Your task to perform on an android device: open app "Google Find My Device" Image 0: 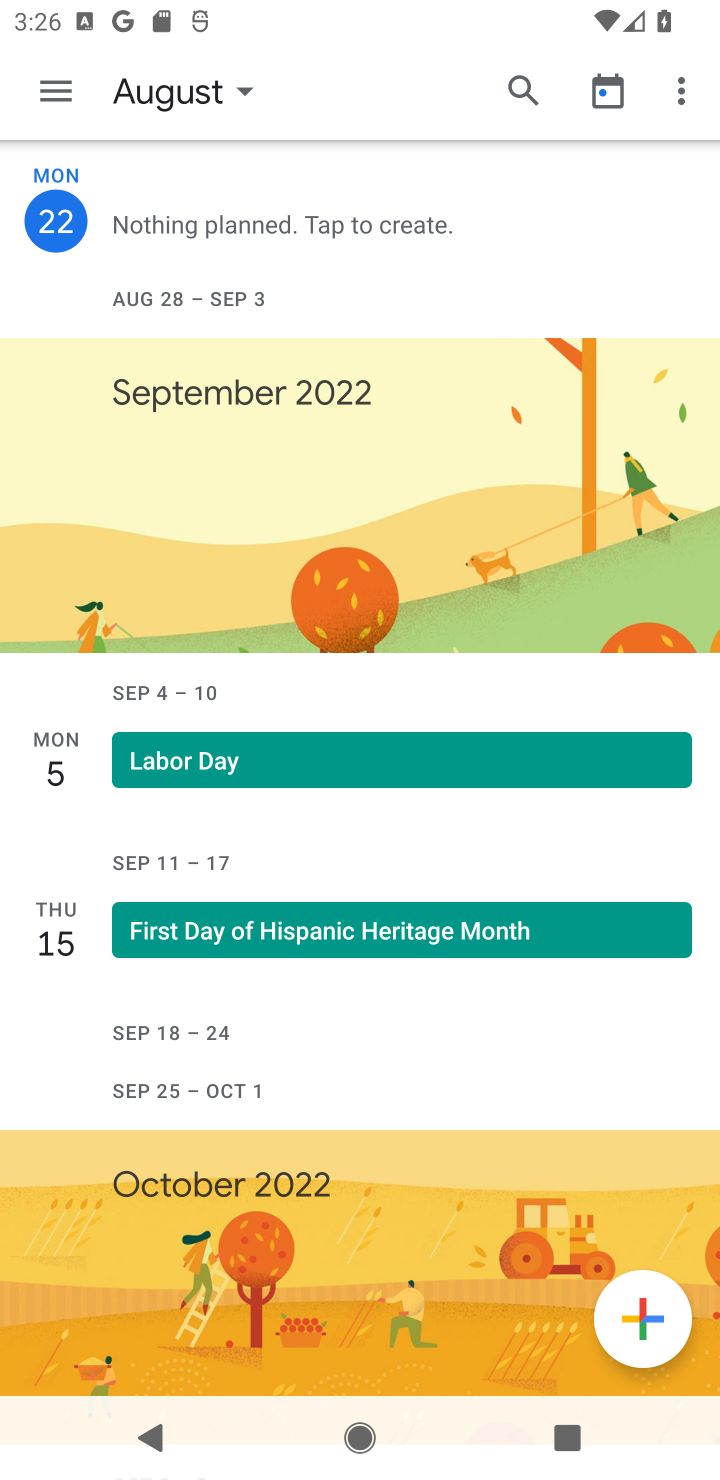
Step 0: press home button
Your task to perform on an android device: open app "Google Find My Device" Image 1: 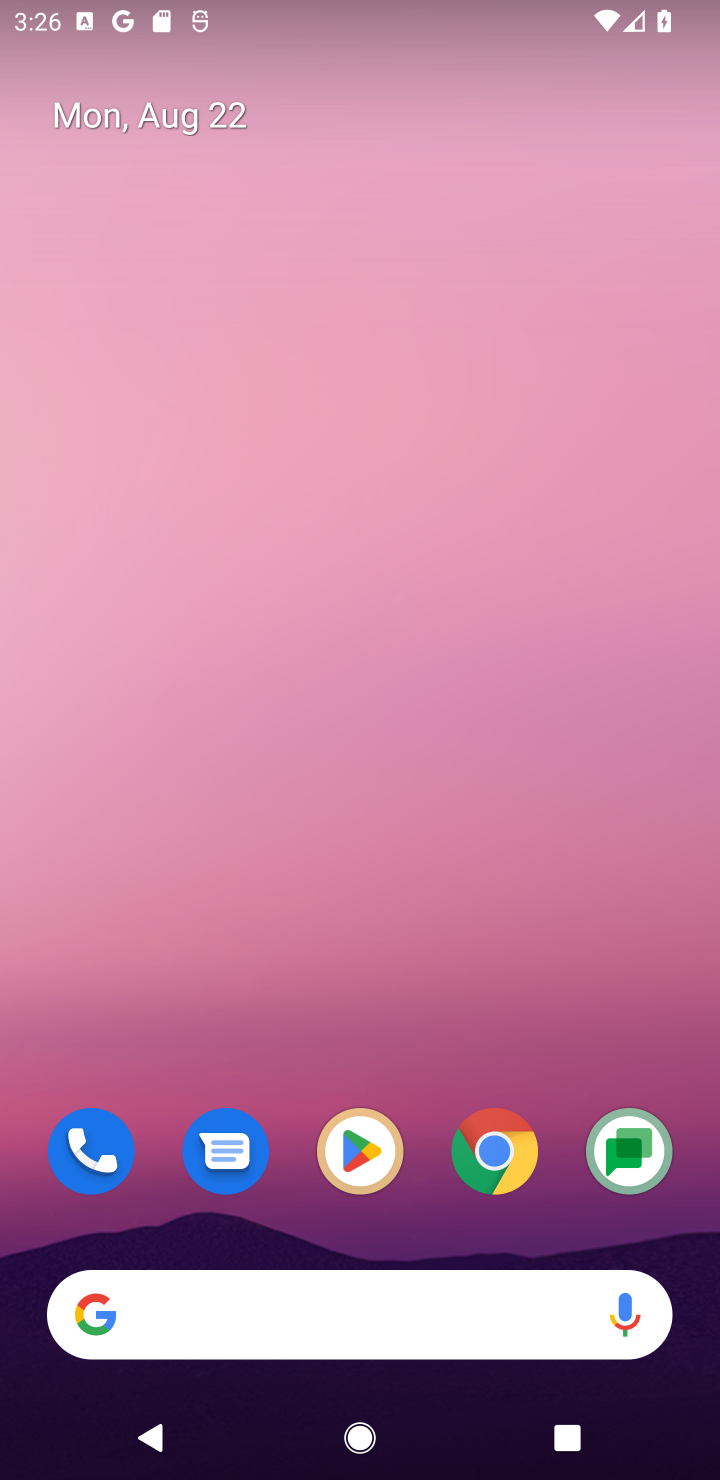
Step 1: click (379, 1127)
Your task to perform on an android device: open app "Google Find My Device" Image 2: 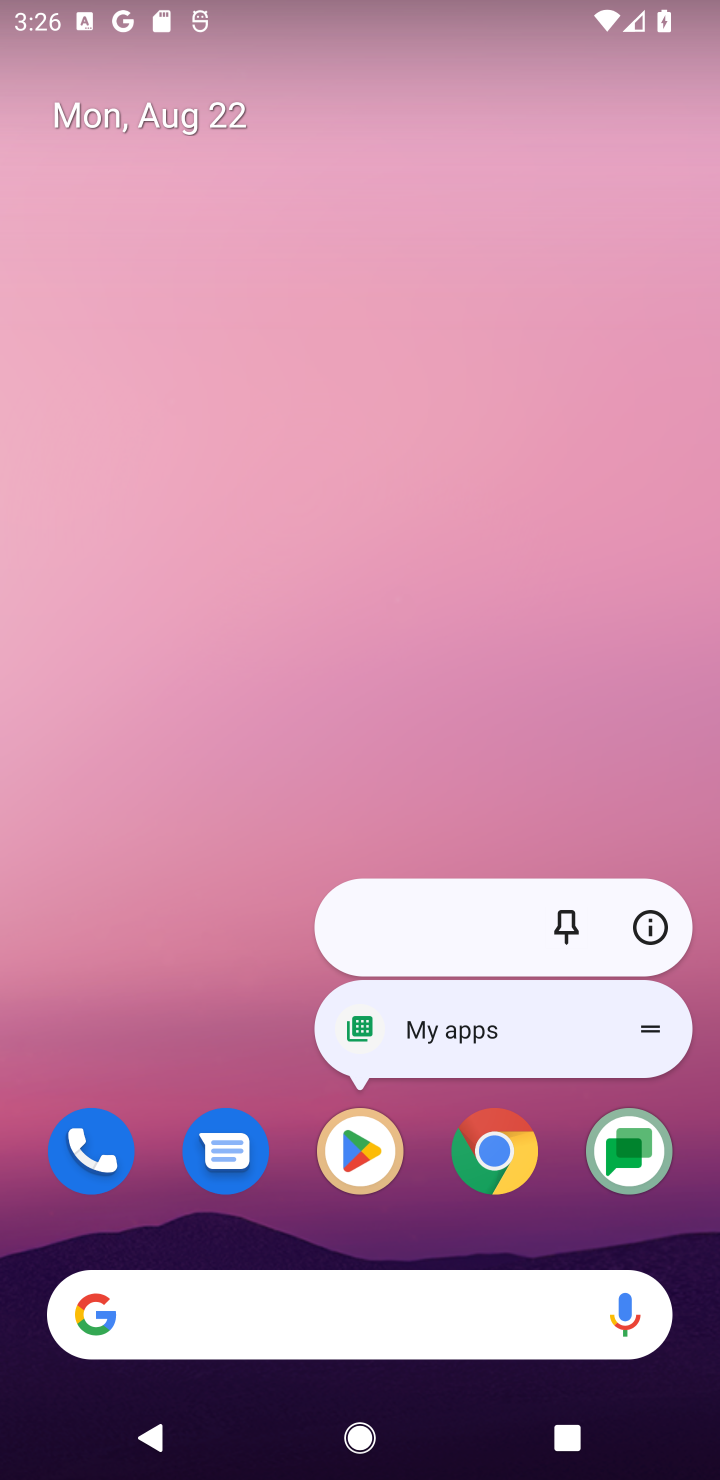
Step 2: click (354, 1155)
Your task to perform on an android device: open app "Google Find My Device" Image 3: 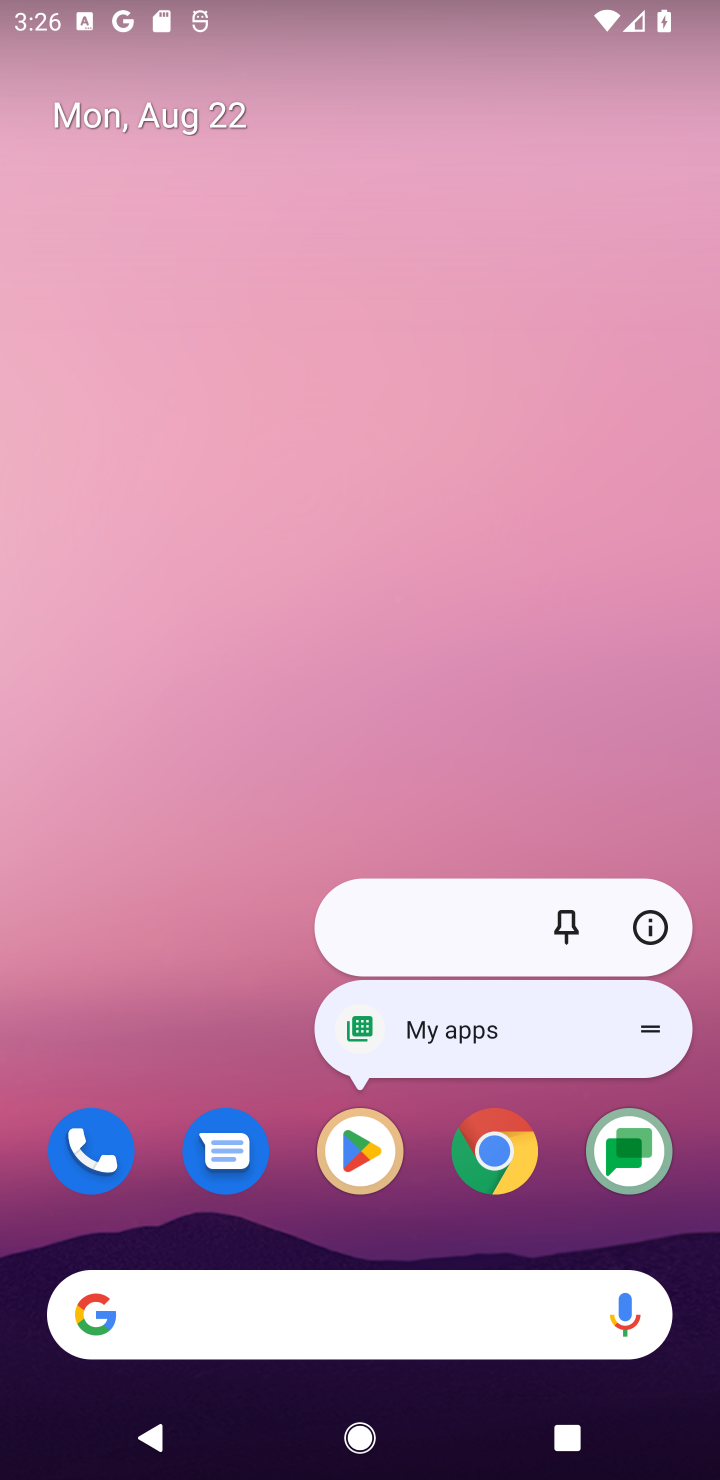
Step 3: click (354, 1155)
Your task to perform on an android device: open app "Google Find My Device" Image 4: 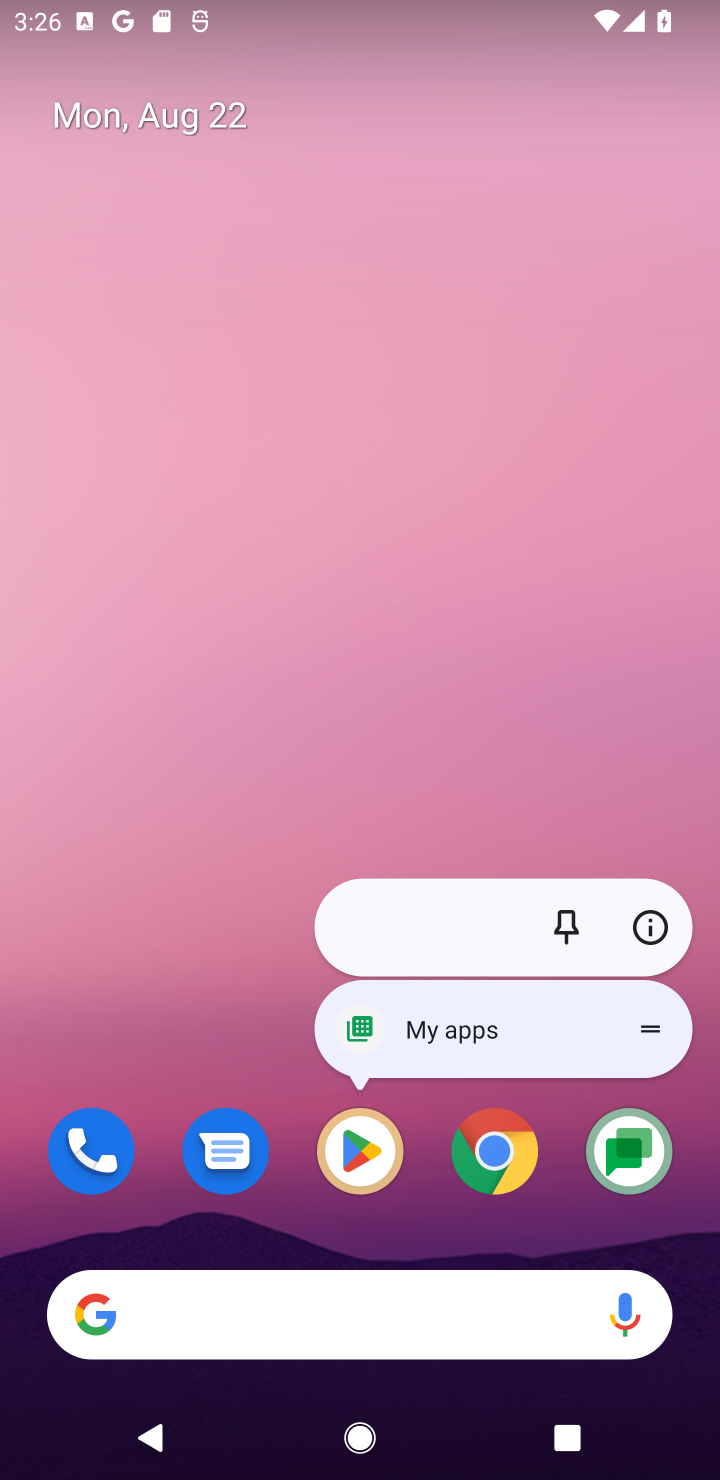
Step 4: click (354, 1162)
Your task to perform on an android device: open app "Google Find My Device" Image 5: 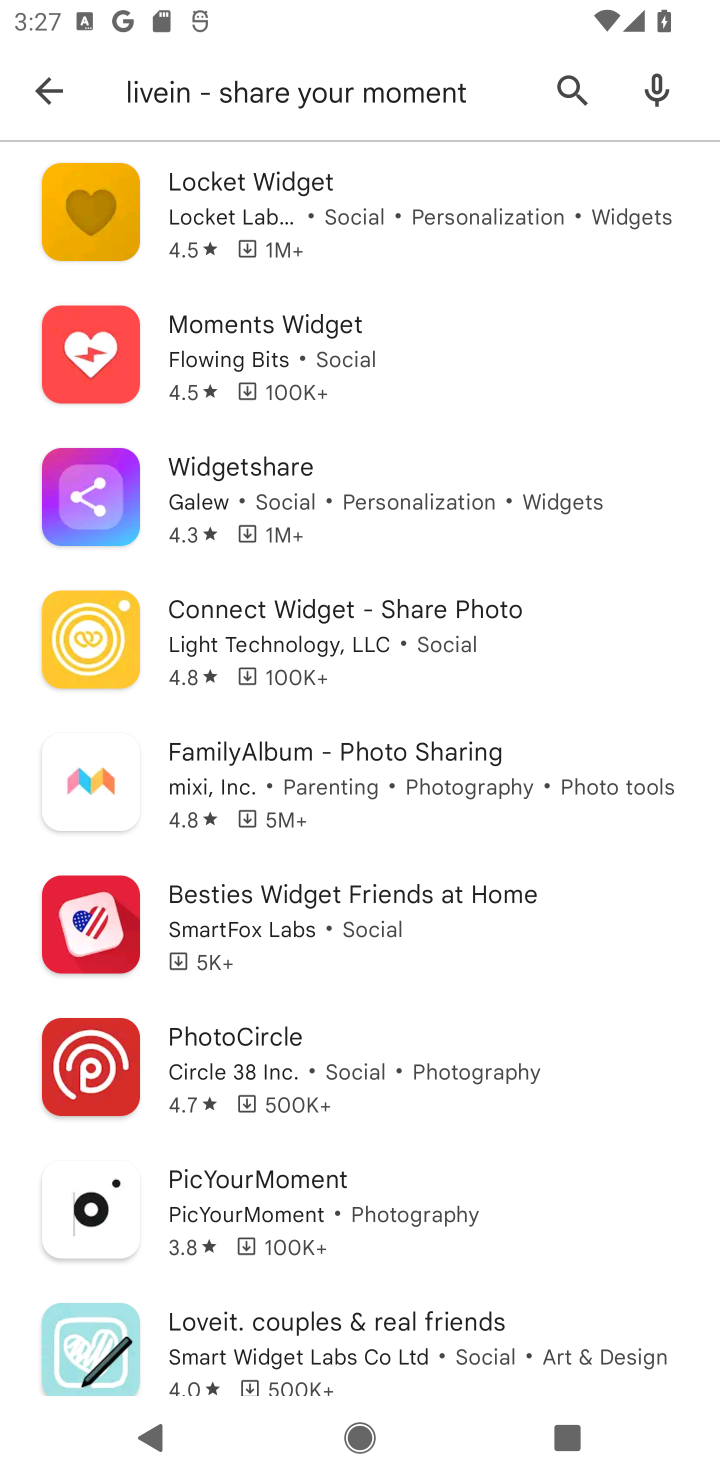
Step 5: click (567, 73)
Your task to perform on an android device: open app "Google Find My Device" Image 6: 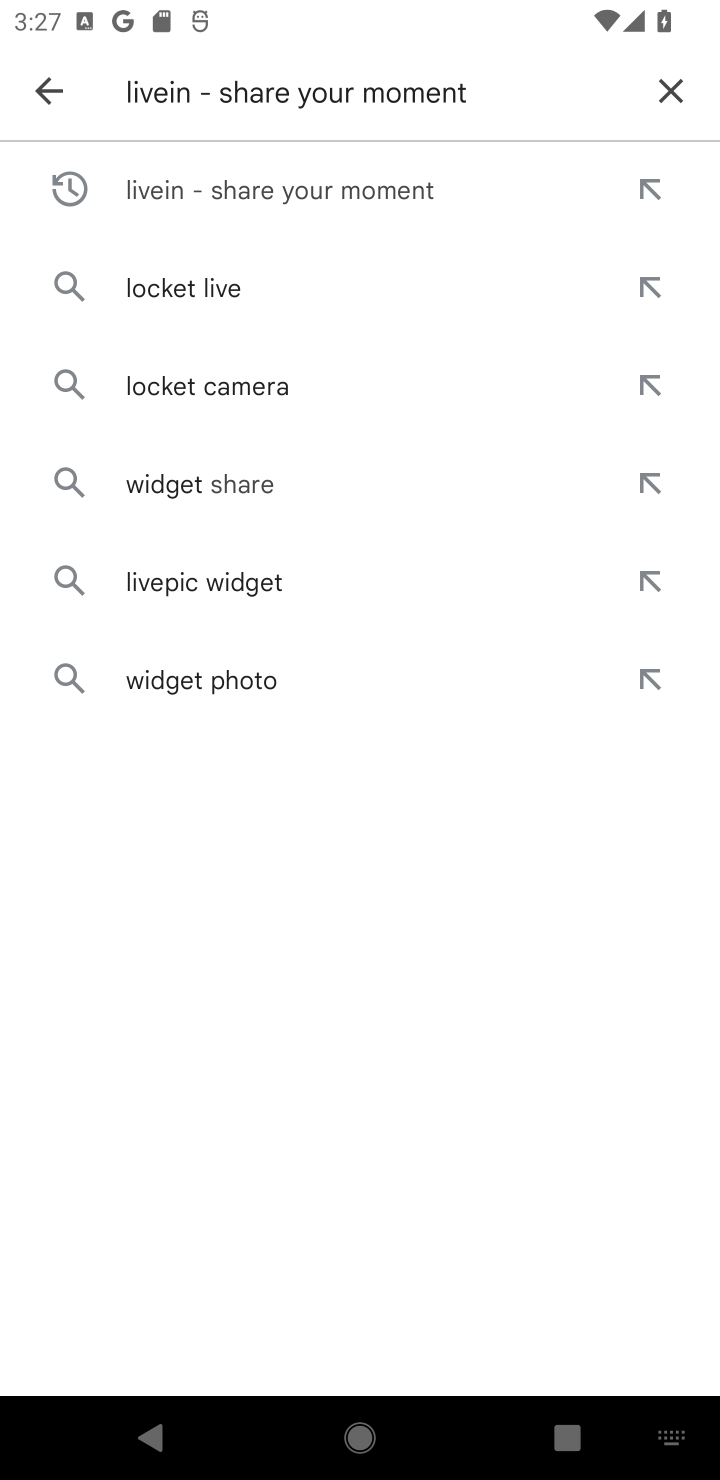
Step 6: click (674, 85)
Your task to perform on an android device: open app "Google Find My Device" Image 7: 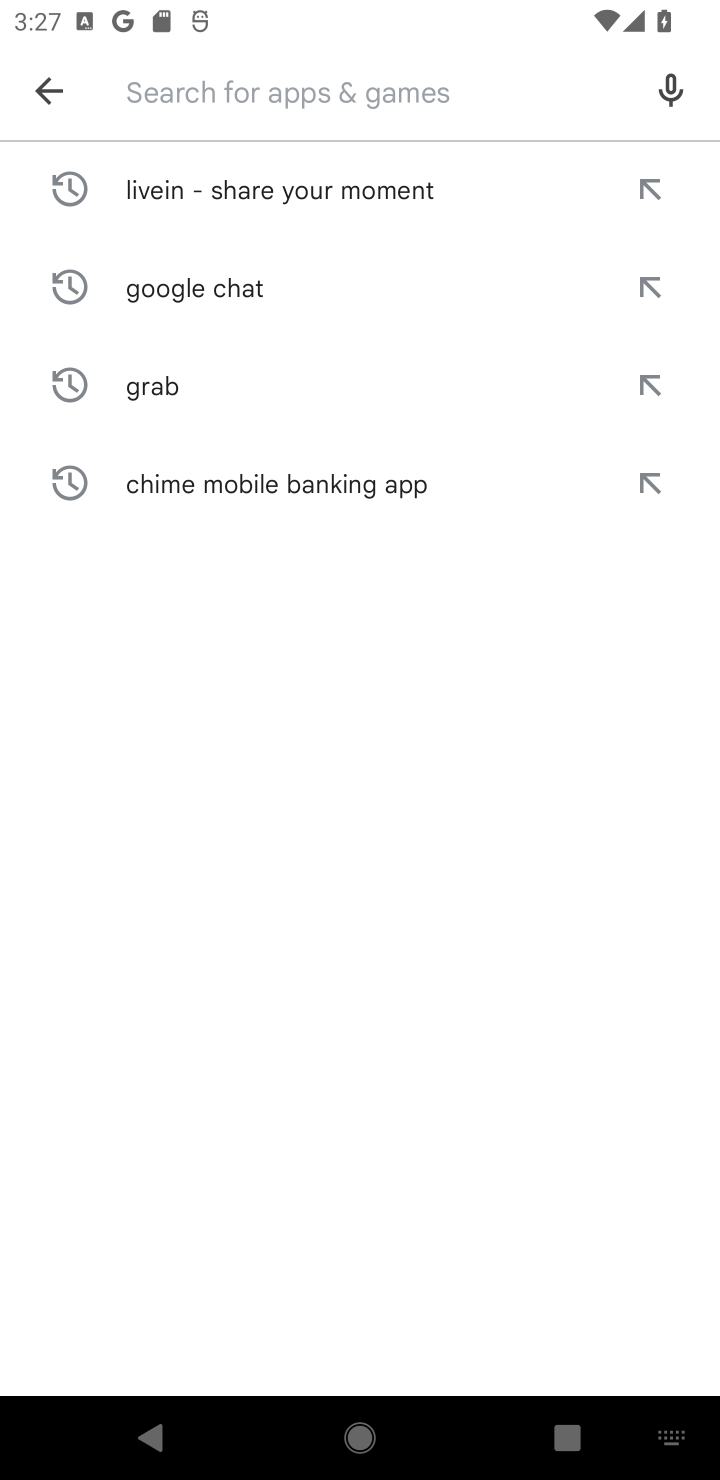
Step 7: type "Google Find My Device"
Your task to perform on an android device: open app "Google Find My Device" Image 8: 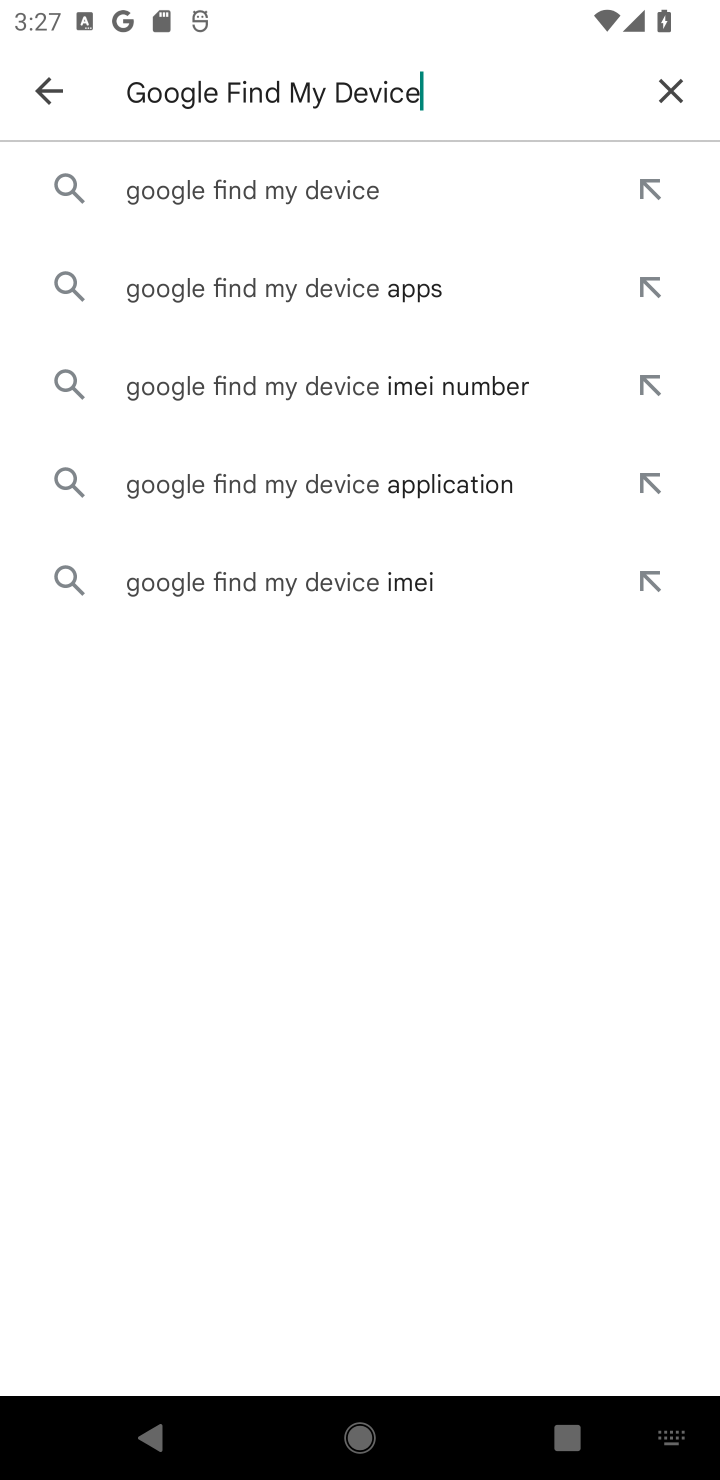
Step 8: click (280, 191)
Your task to perform on an android device: open app "Google Find My Device" Image 9: 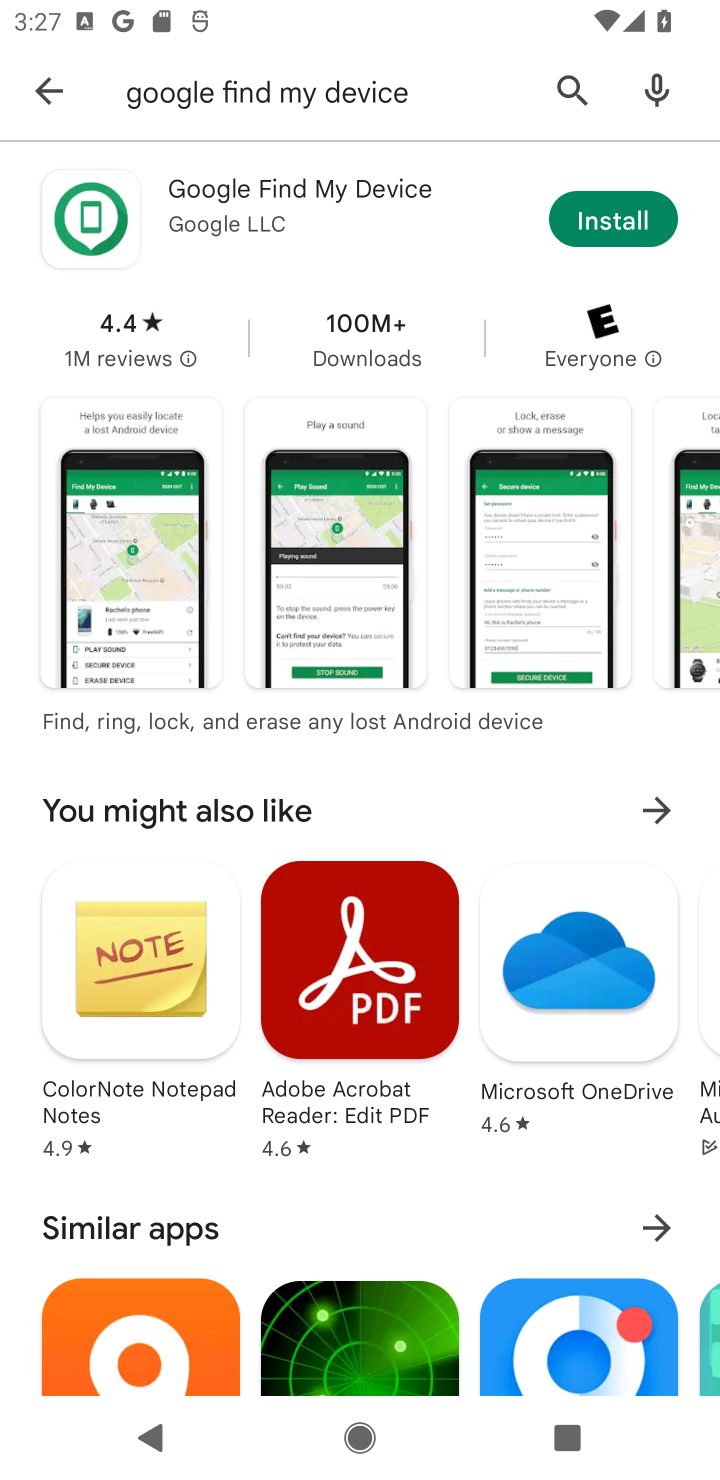
Step 9: task complete